Your task to perform on an android device: delete the emails in spam in the gmail app Image 0: 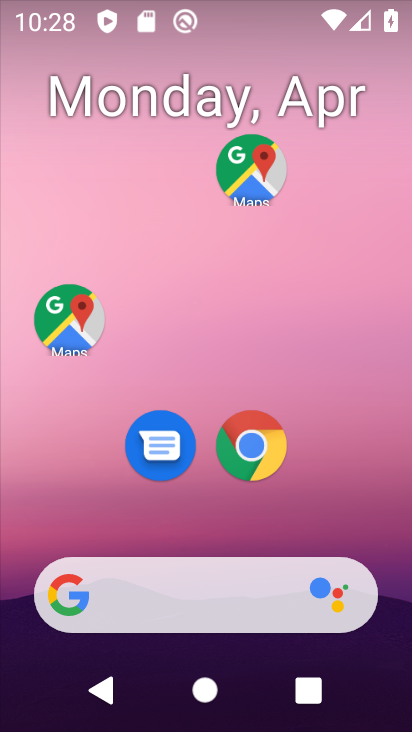
Step 0: drag from (273, 507) to (312, 25)
Your task to perform on an android device: delete the emails in spam in the gmail app Image 1: 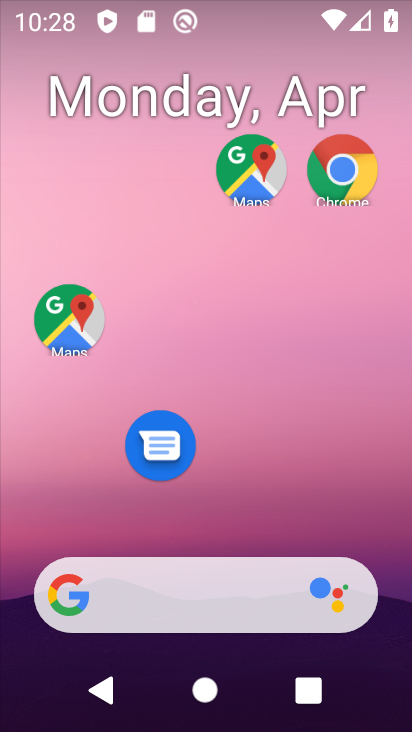
Step 1: drag from (289, 460) to (274, 1)
Your task to perform on an android device: delete the emails in spam in the gmail app Image 2: 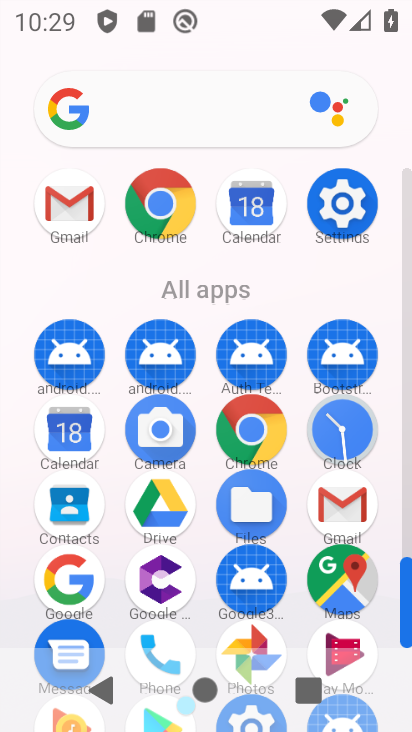
Step 2: click (347, 509)
Your task to perform on an android device: delete the emails in spam in the gmail app Image 3: 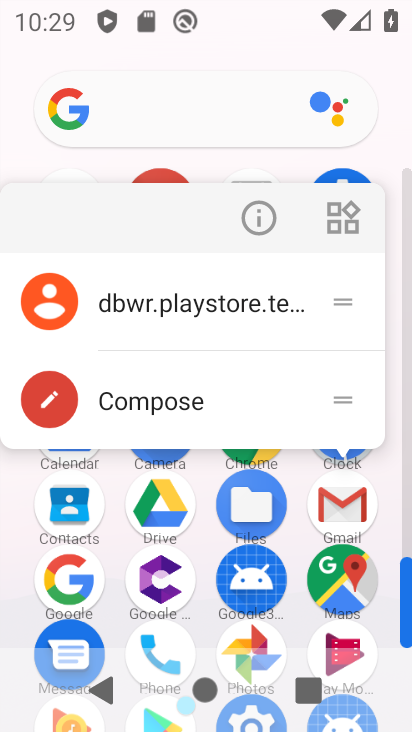
Step 3: click (352, 499)
Your task to perform on an android device: delete the emails in spam in the gmail app Image 4: 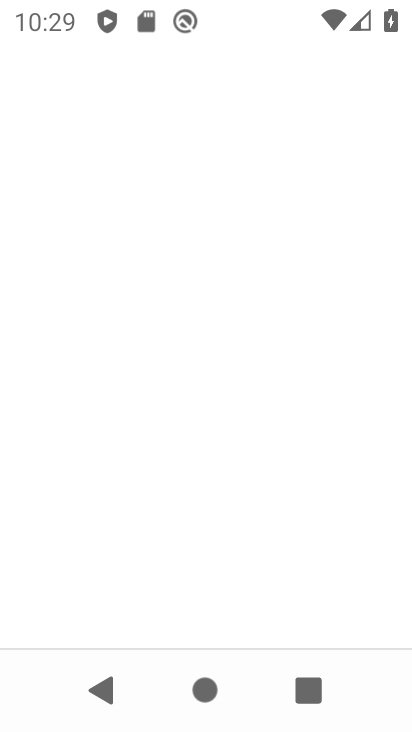
Step 4: click (352, 500)
Your task to perform on an android device: delete the emails in spam in the gmail app Image 5: 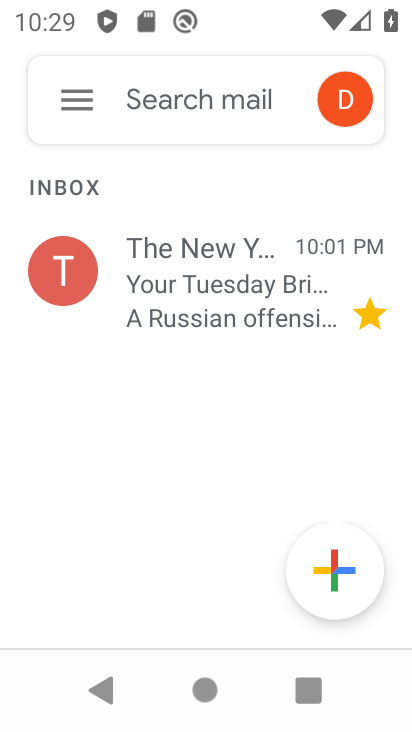
Step 5: click (66, 105)
Your task to perform on an android device: delete the emails in spam in the gmail app Image 6: 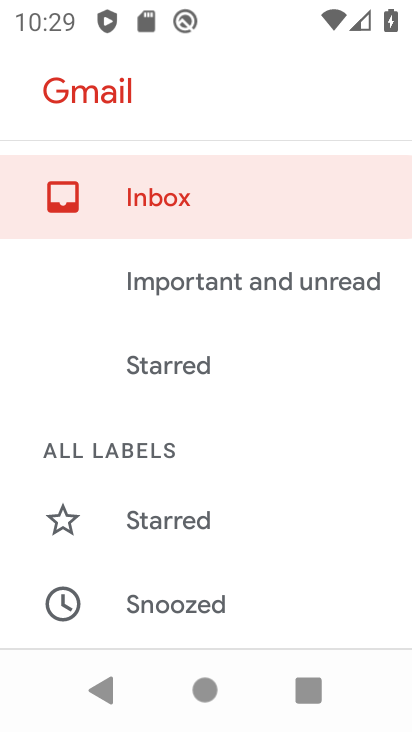
Step 6: drag from (212, 589) to (289, 193)
Your task to perform on an android device: delete the emails in spam in the gmail app Image 7: 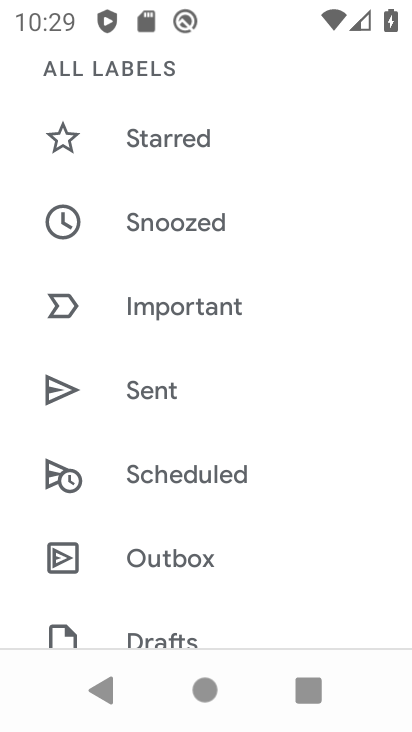
Step 7: drag from (228, 596) to (301, 156)
Your task to perform on an android device: delete the emails in spam in the gmail app Image 8: 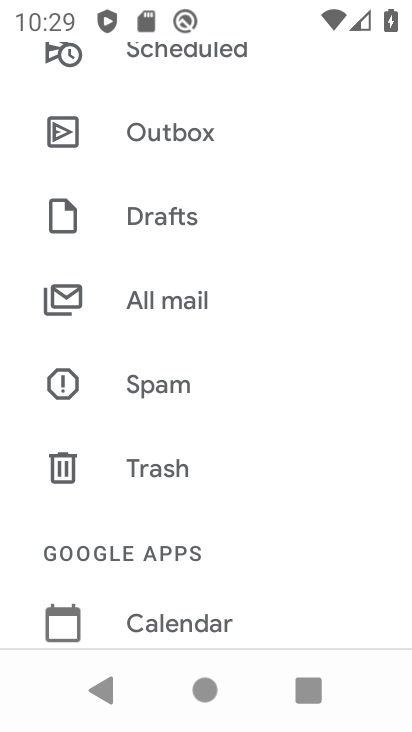
Step 8: click (166, 390)
Your task to perform on an android device: delete the emails in spam in the gmail app Image 9: 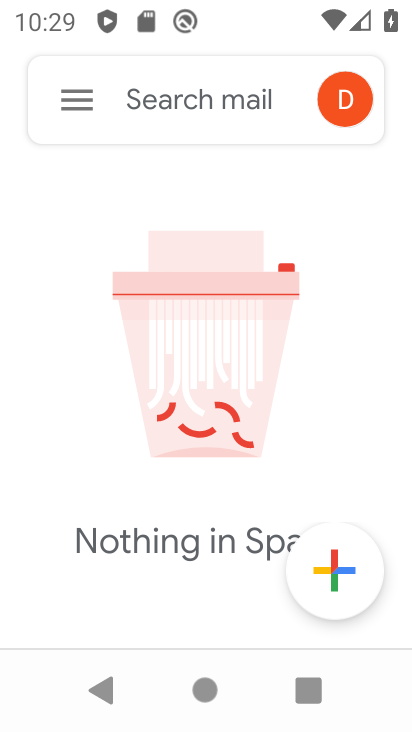
Step 9: task complete